Your task to perform on an android device: turn off data saver in the chrome app Image 0: 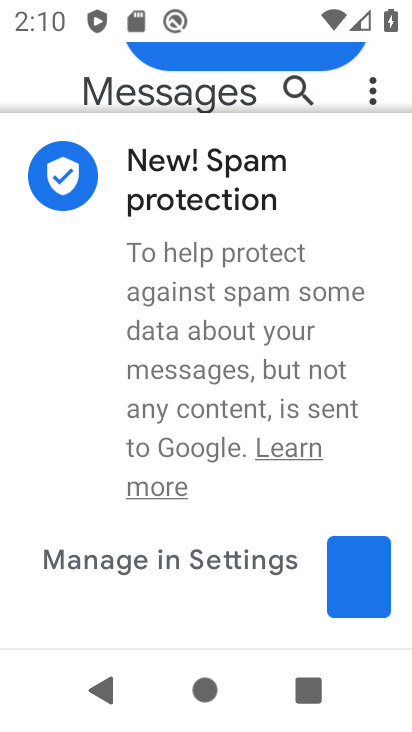
Step 0: press home button
Your task to perform on an android device: turn off data saver in the chrome app Image 1: 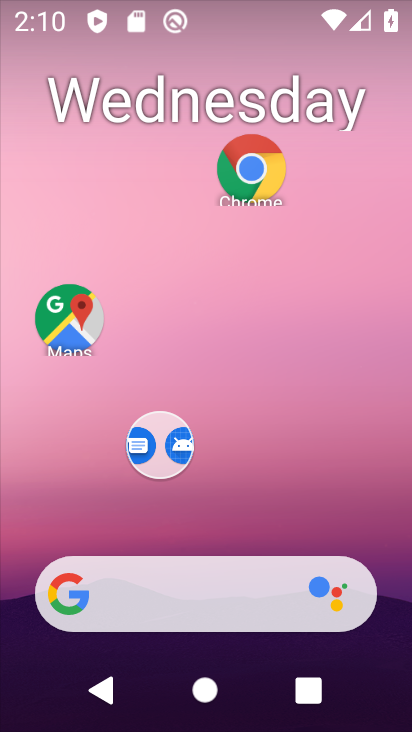
Step 1: click (245, 179)
Your task to perform on an android device: turn off data saver in the chrome app Image 2: 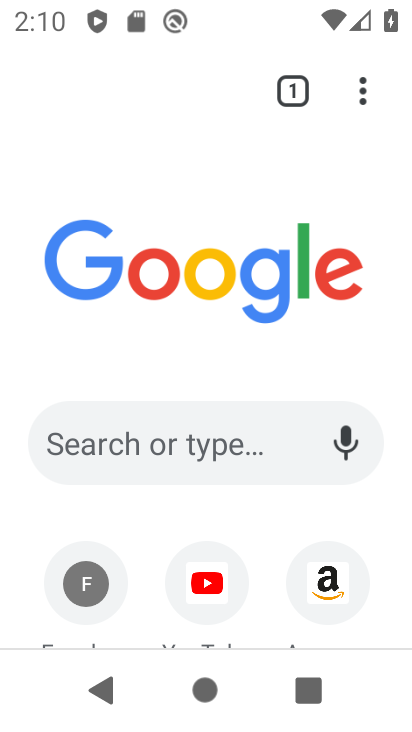
Step 2: click (352, 116)
Your task to perform on an android device: turn off data saver in the chrome app Image 3: 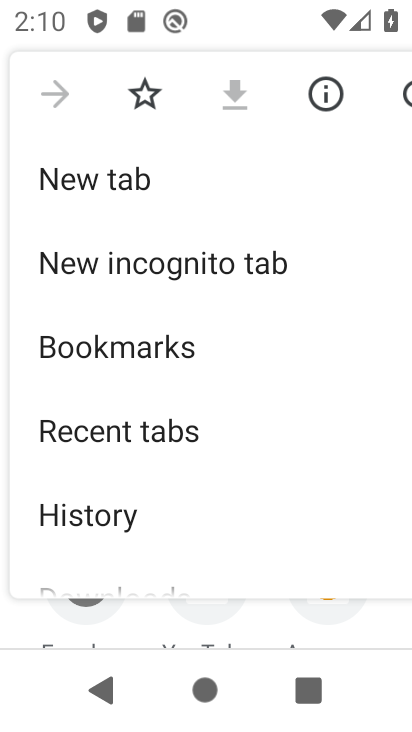
Step 3: drag from (276, 469) to (230, 49)
Your task to perform on an android device: turn off data saver in the chrome app Image 4: 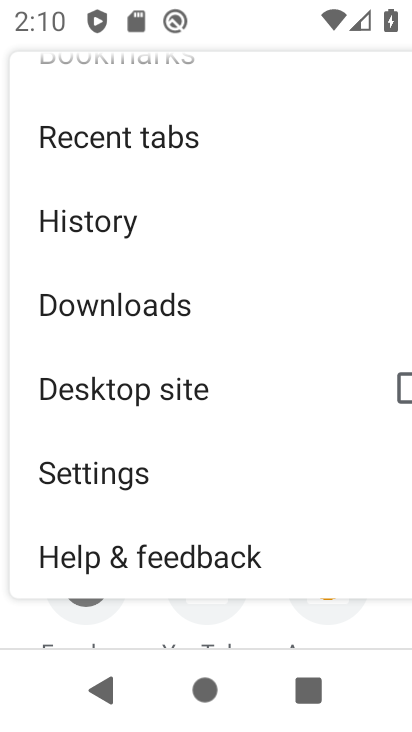
Step 4: click (164, 474)
Your task to perform on an android device: turn off data saver in the chrome app Image 5: 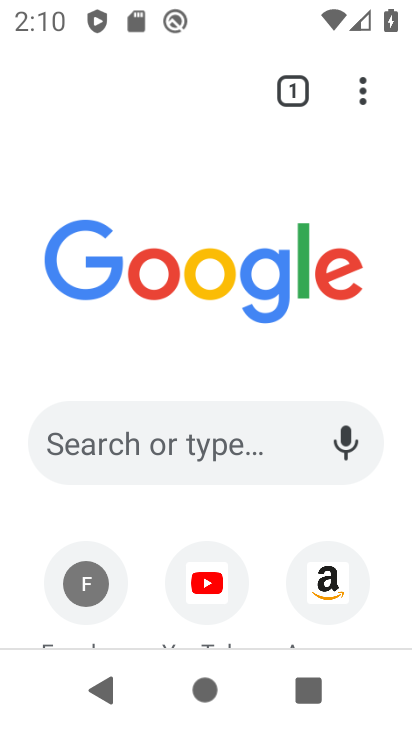
Step 5: drag from (160, 629) to (219, 67)
Your task to perform on an android device: turn off data saver in the chrome app Image 6: 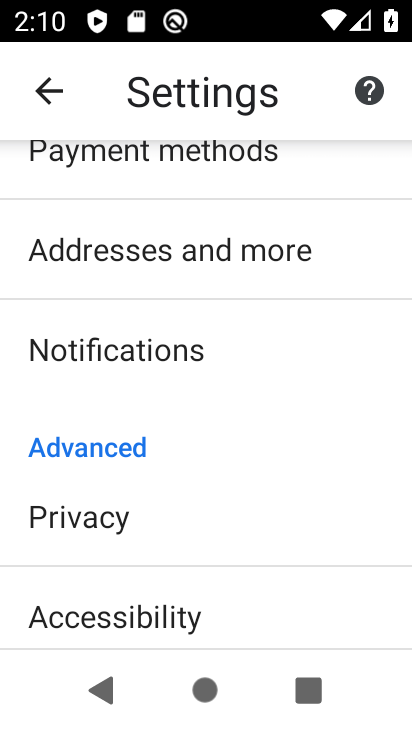
Step 6: drag from (155, 593) to (146, 119)
Your task to perform on an android device: turn off data saver in the chrome app Image 7: 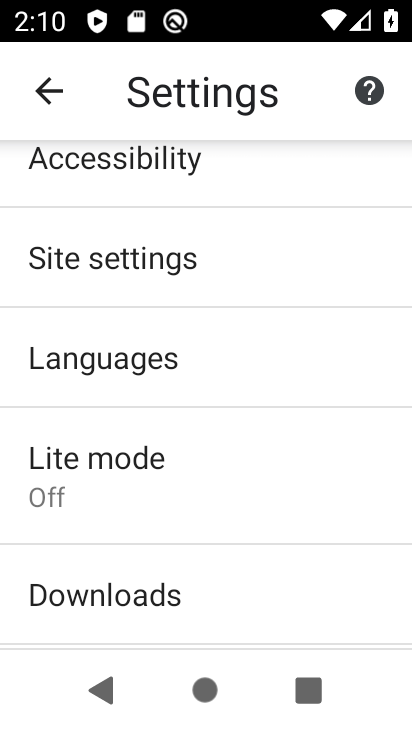
Step 7: click (64, 459)
Your task to perform on an android device: turn off data saver in the chrome app Image 8: 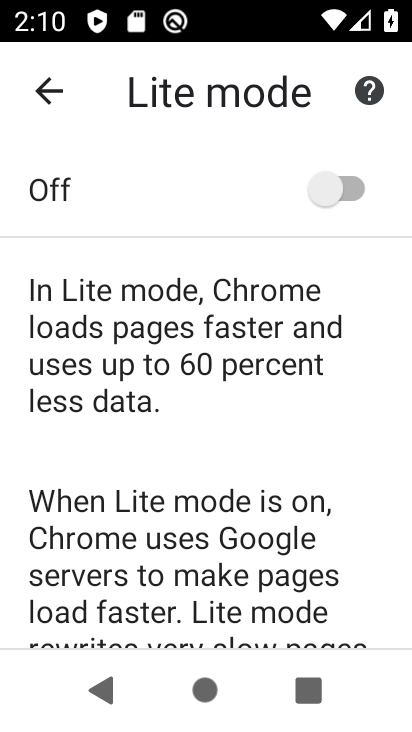
Step 8: task complete